Your task to perform on an android device: set an alarm Image 0: 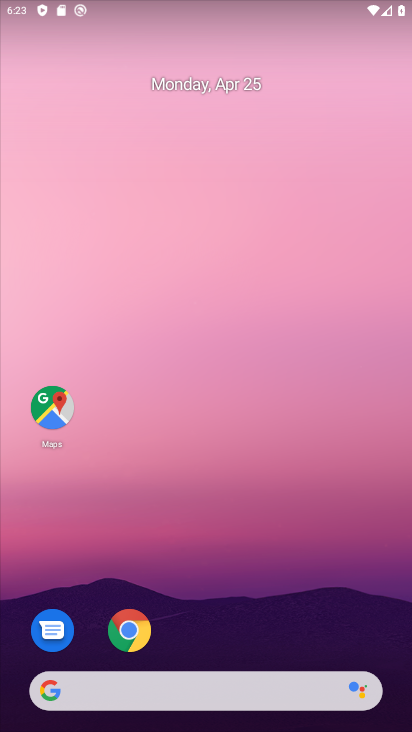
Step 0: drag from (249, 570) to (224, 7)
Your task to perform on an android device: set an alarm Image 1: 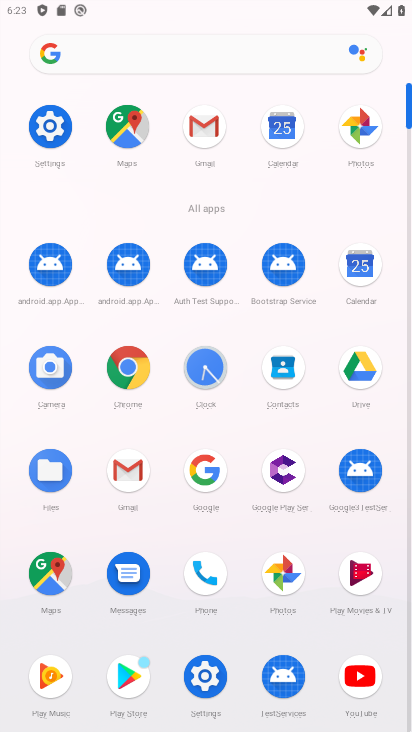
Step 1: click (208, 374)
Your task to perform on an android device: set an alarm Image 2: 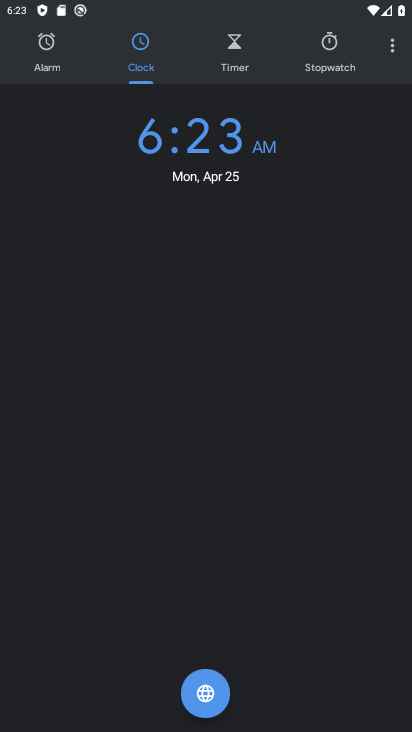
Step 2: click (45, 48)
Your task to perform on an android device: set an alarm Image 3: 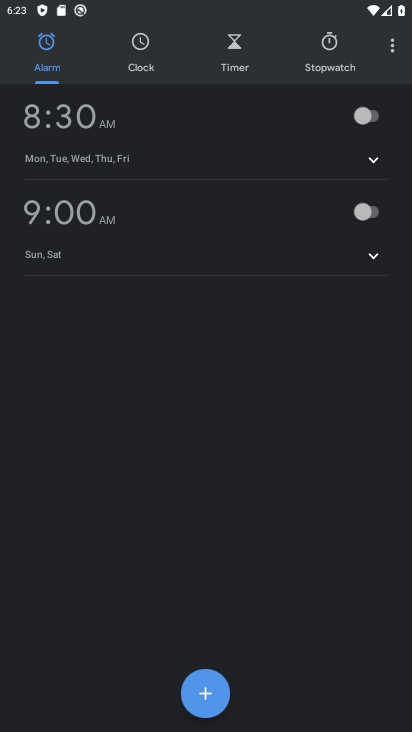
Step 3: click (375, 117)
Your task to perform on an android device: set an alarm Image 4: 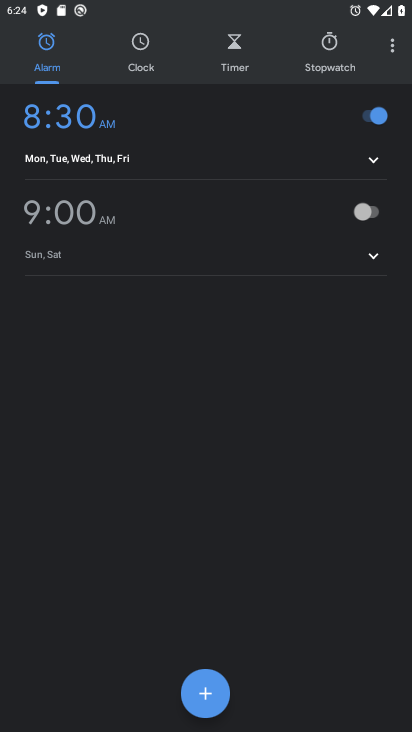
Step 4: task complete